Your task to perform on an android device: create a new album in the google photos Image 0: 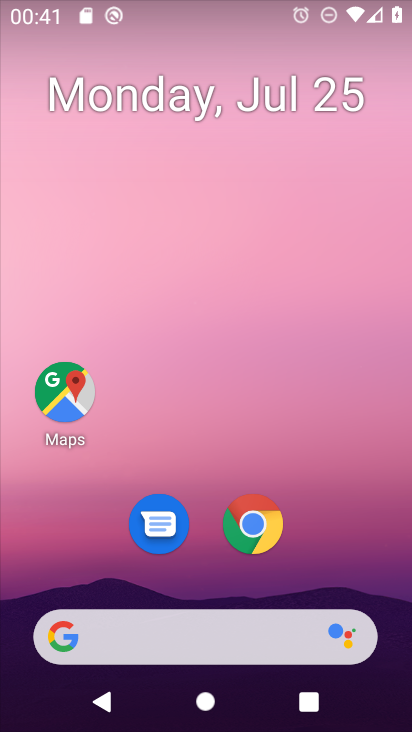
Step 0: drag from (190, 636) to (311, 191)
Your task to perform on an android device: create a new album in the google photos Image 1: 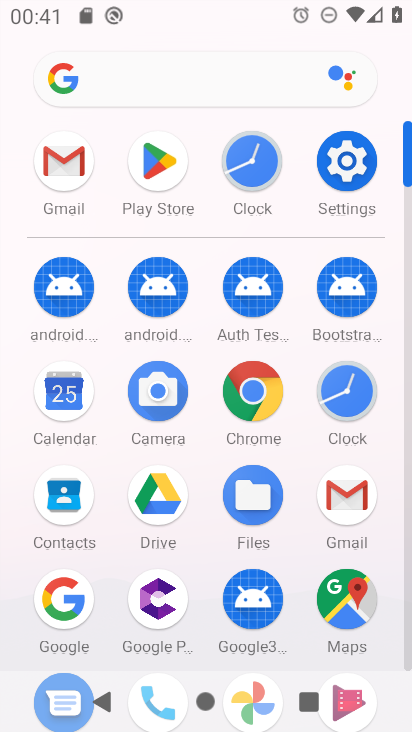
Step 1: drag from (202, 567) to (289, 164)
Your task to perform on an android device: create a new album in the google photos Image 2: 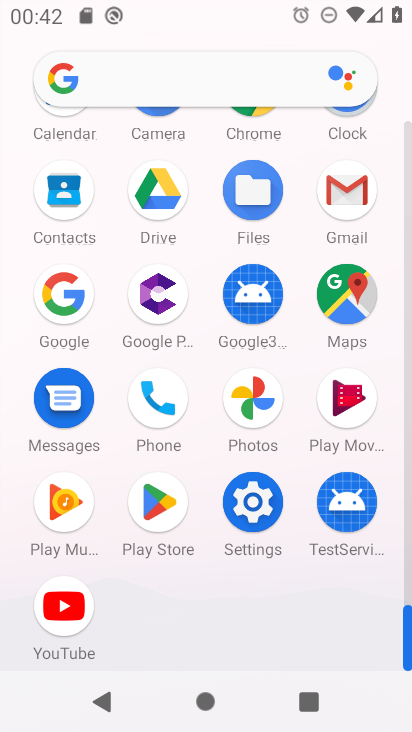
Step 2: click (245, 410)
Your task to perform on an android device: create a new album in the google photos Image 3: 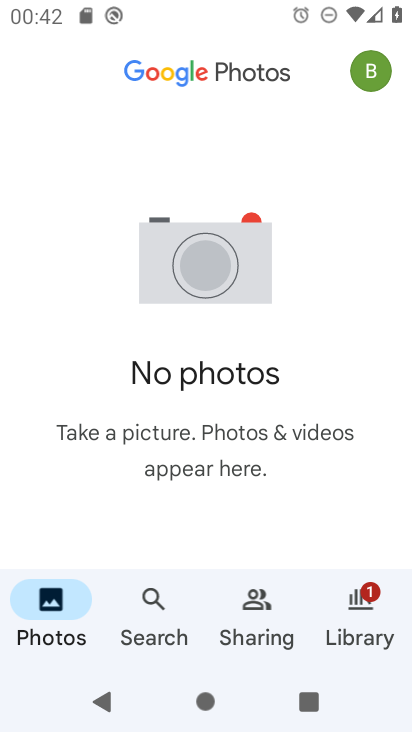
Step 3: click (338, 615)
Your task to perform on an android device: create a new album in the google photos Image 4: 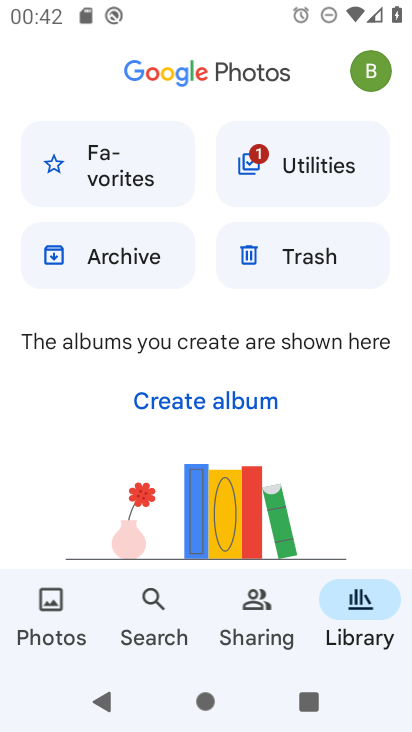
Step 4: task complete